Your task to perform on an android device: find photos in the google photos app Image 0: 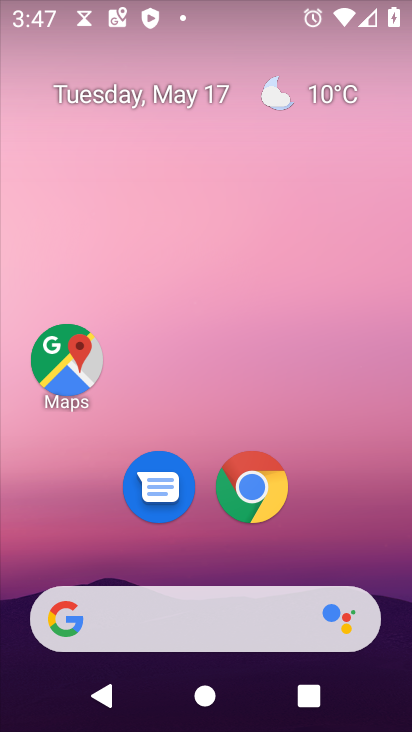
Step 0: drag from (395, 615) to (351, 153)
Your task to perform on an android device: find photos in the google photos app Image 1: 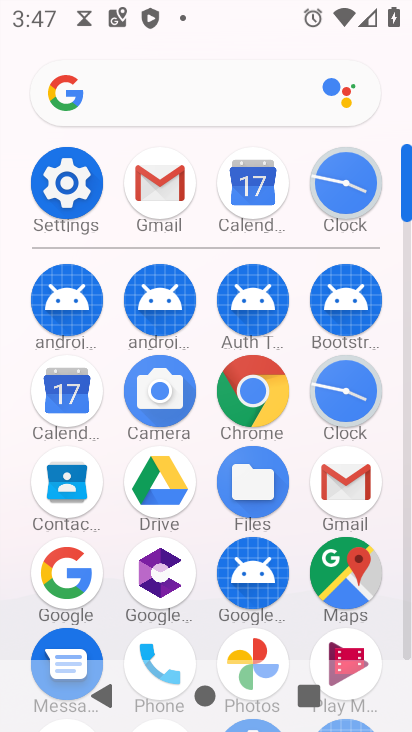
Step 1: click (405, 644)
Your task to perform on an android device: find photos in the google photos app Image 2: 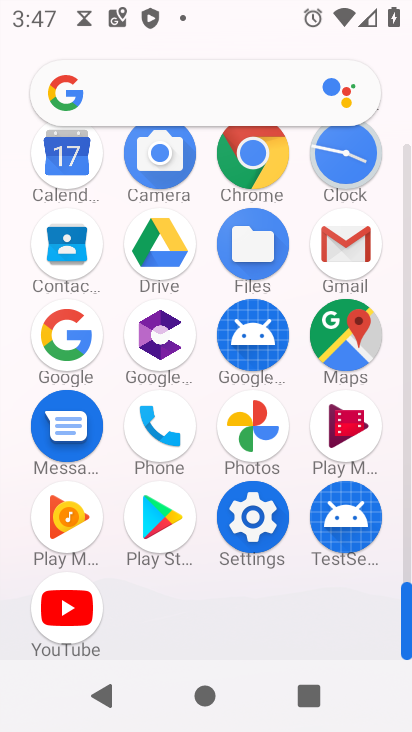
Step 2: click (253, 420)
Your task to perform on an android device: find photos in the google photos app Image 3: 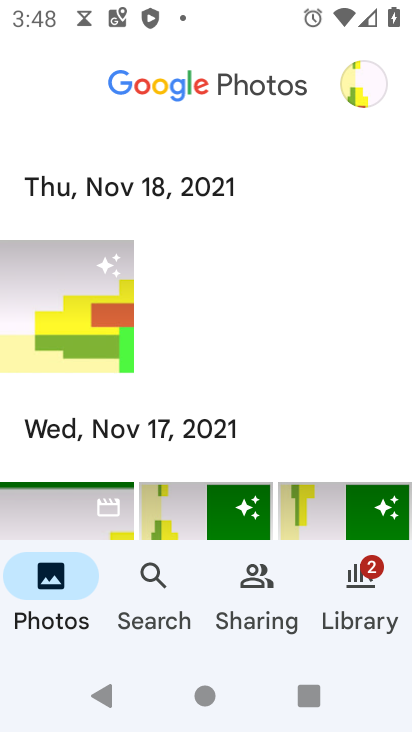
Step 3: task complete